Your task to perform on an android device: Open Google Chrome Image 0: 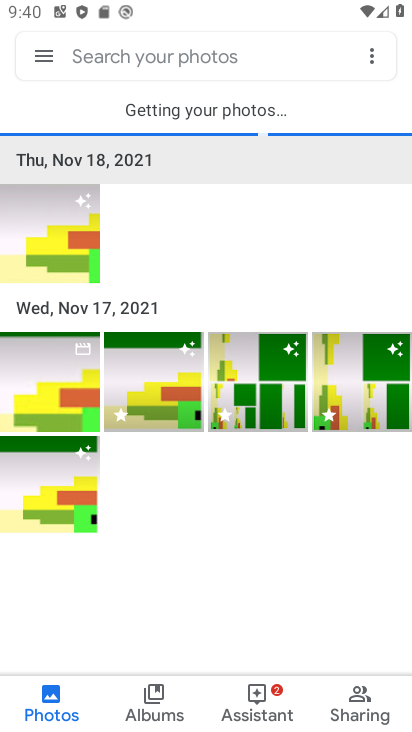
Step 0: press home button
Your task to perform on an android device: Open Google Chrome Image 1: 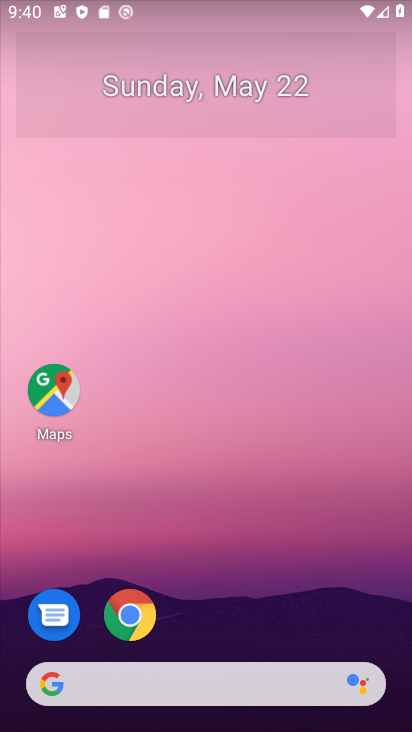
Step 1: click (136, 624)
Your task to perform on an android device: Open Google Chrome Image 2: 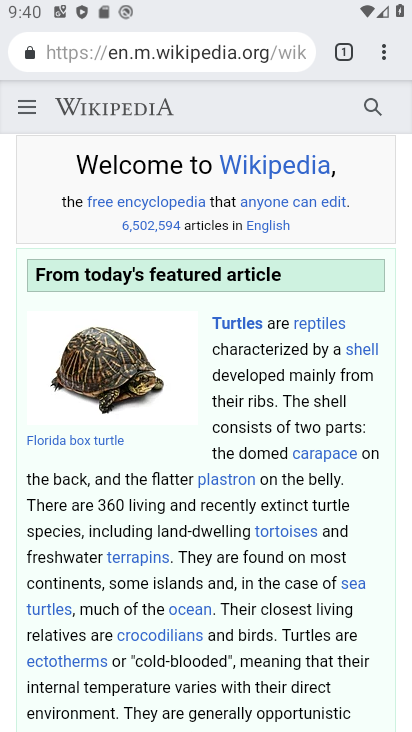
Step 2: task complete